Your task to perform on an android device: empty trash in google photos Image 0: 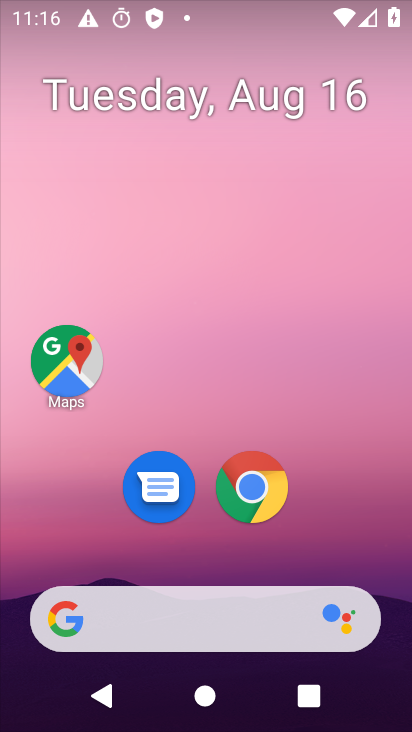
Step 0: drag from (331, 529) to (204, 133)
Your task to perform on an android device: empty trash in google photos Image 1: 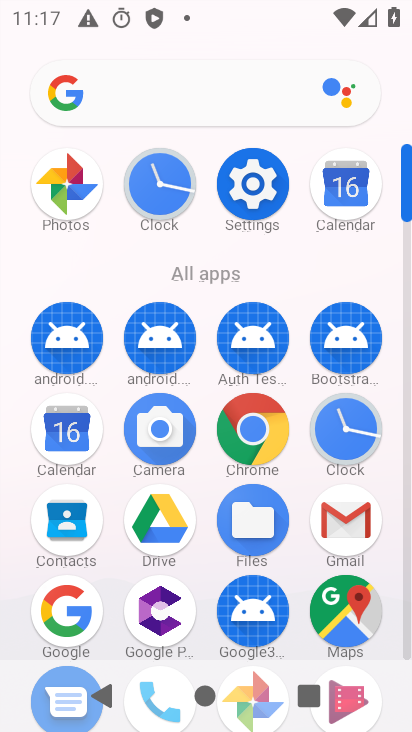
Step 1: drag from (288, 268) to (272, 102)
Your task to perform on an android device: empty trash in google photos Image 2: 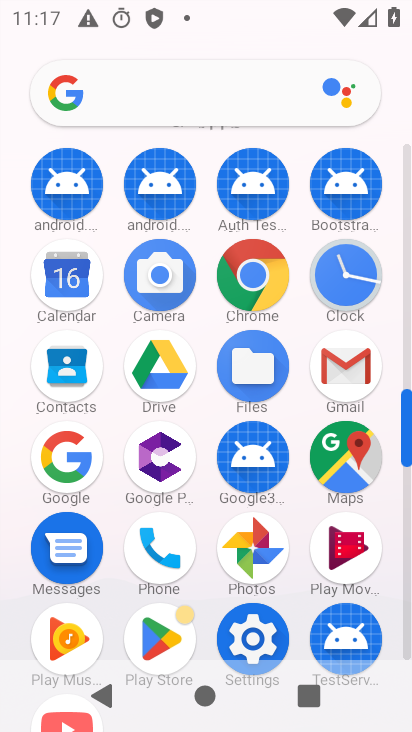
Step 2: click (261, 545)
Your task to perform on an android device: empty trash in google photos Image 3: 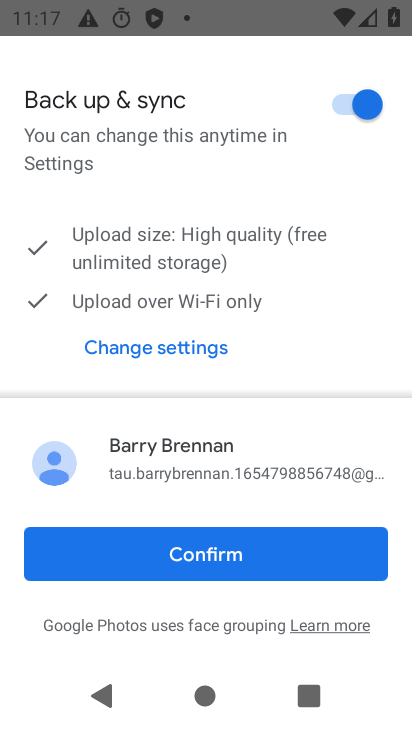
Step 3: click (258, 570)
Your task to perform on an android device: empty trash in google photos Image 4: 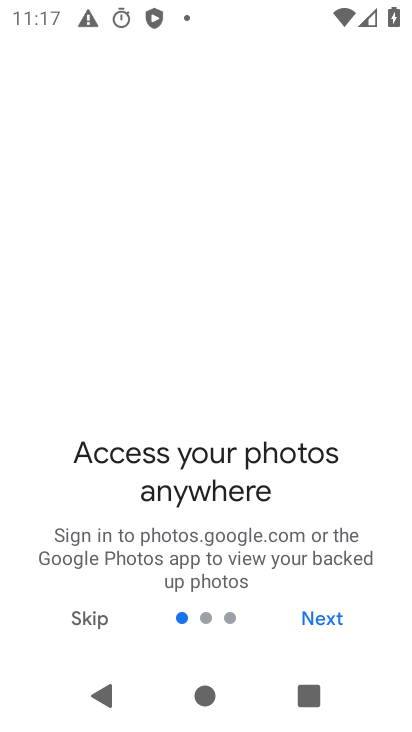
Step 4: click (90, 621)
Your task to perform on an android device: empty trash in google photos Image 5: 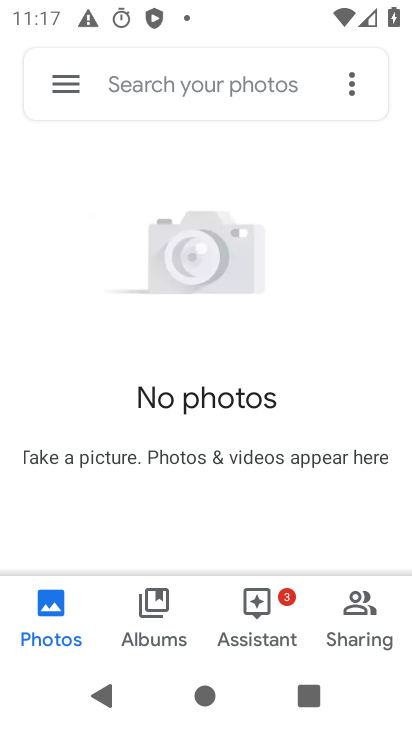
Step 5: click (69, 86)
Your task to perform on an android device: empty trash in google photos Image 6: 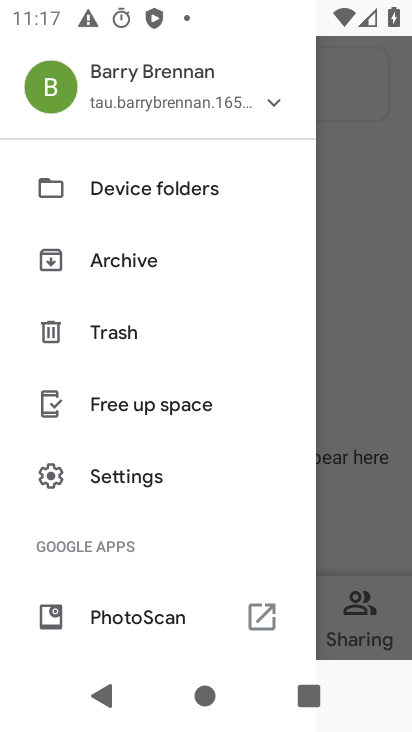
Step 6: click (142, 333)
Your task to perform on an android device: empty trash in google photos Image 7: 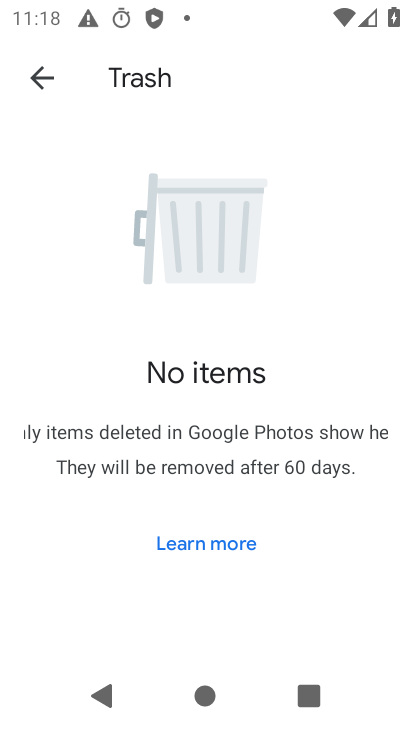
Step 7: task complete